Your task to perform on an android device: Open Google Chrome and open the bookmarks view Image 0: 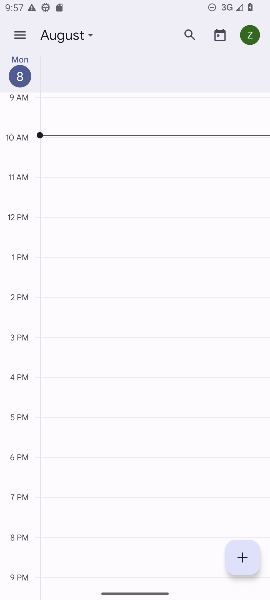
Step 0: press home button
Your task to perform on an android device: Open Google Chrome and open the bookmarks view Image 1: 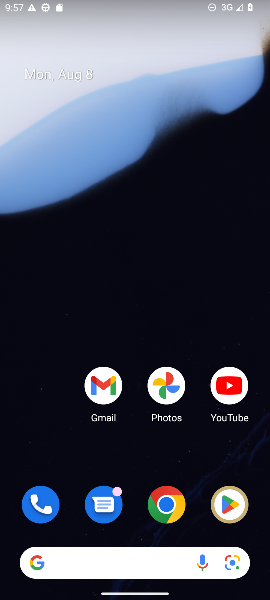
Step 1: click (173, 499)
Your task to perform on an android device: Open Google Chrome and open the bookmarks view Image 2: 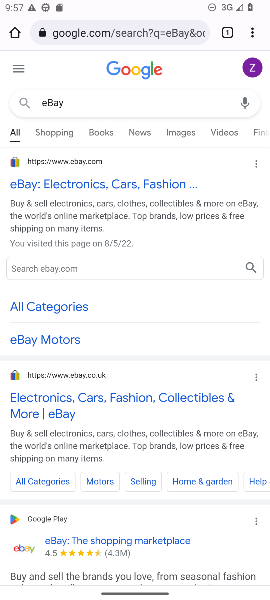
Step 2: click (247, 27)
Your task to perform on an android device: Open Google Chrome and open the bookmarks view Image 3: 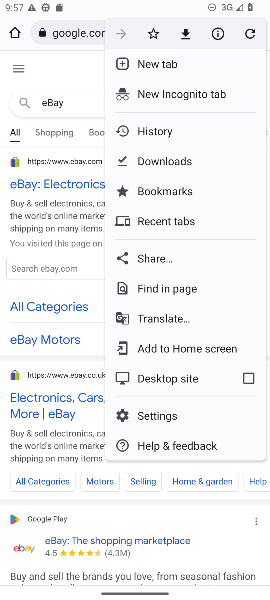
Step 3: click (160, 197)
Your task to perform on an android device: Open Google Chrome and open the bookmarks view Image 4: 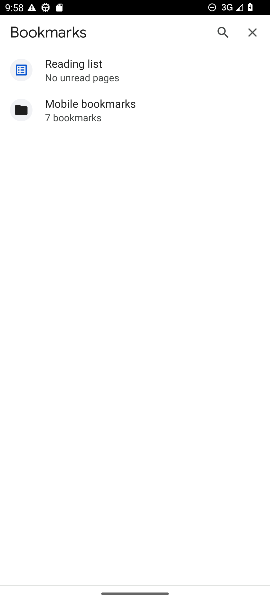
Step 4: task complete